Your task to perform on an android device: Go to ESPN.com Image 0: 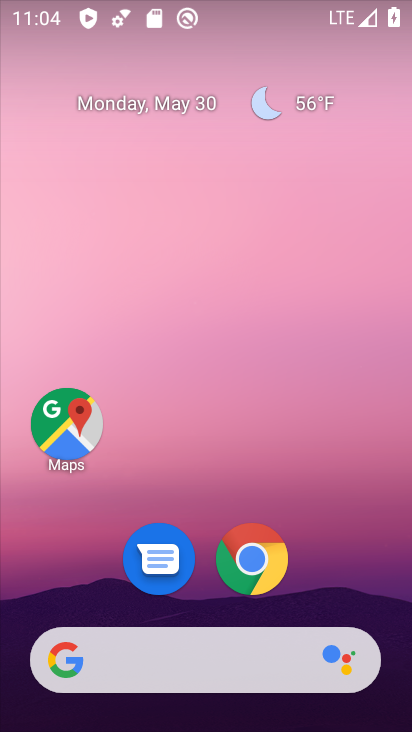
Step 0: click (266, 552)
Your task to perform on an android device: Go to ESPN.com Image 1: 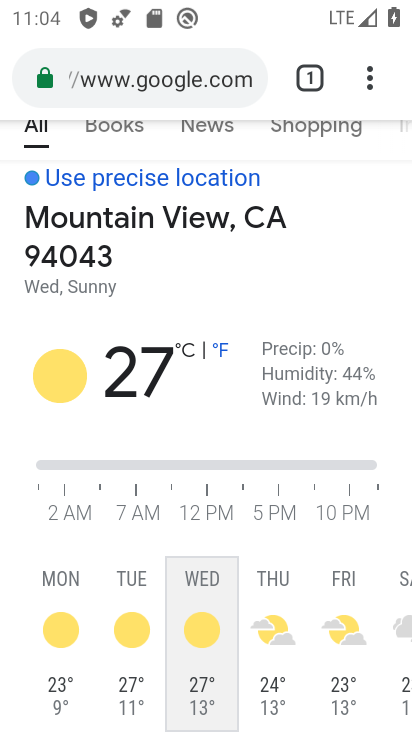
Step 1: click (219, 83)
Your task to perform on an android device: Go to ESPN.com Image 2: 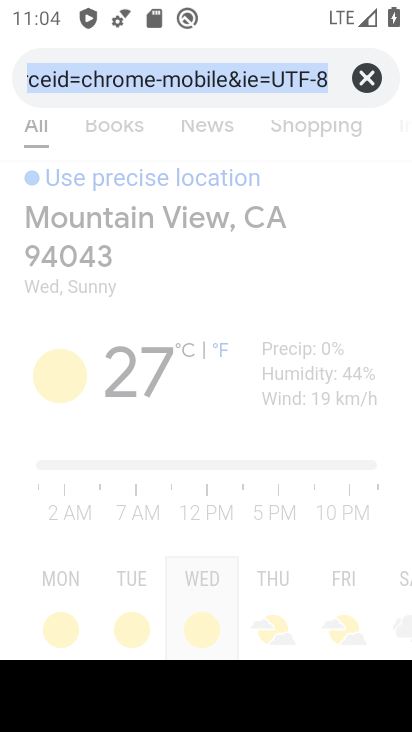
Step 2: type "espn.com"
Your task to perform on an android device: Go to ESPN.com Image 3: 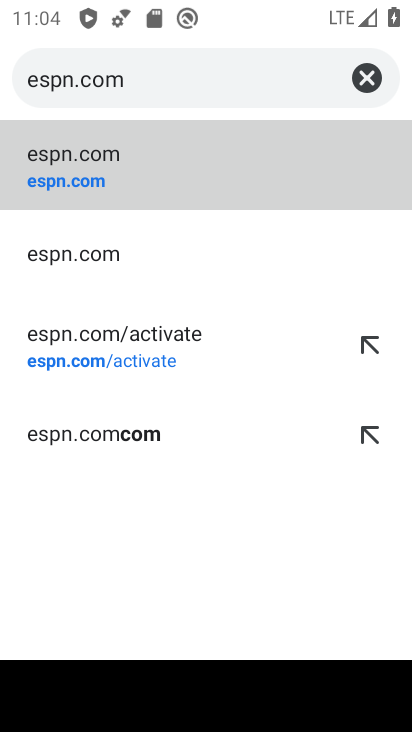
Step 3: click (86, 174)
Your task to perform on an android device: Go to ESPN.com Image 4: 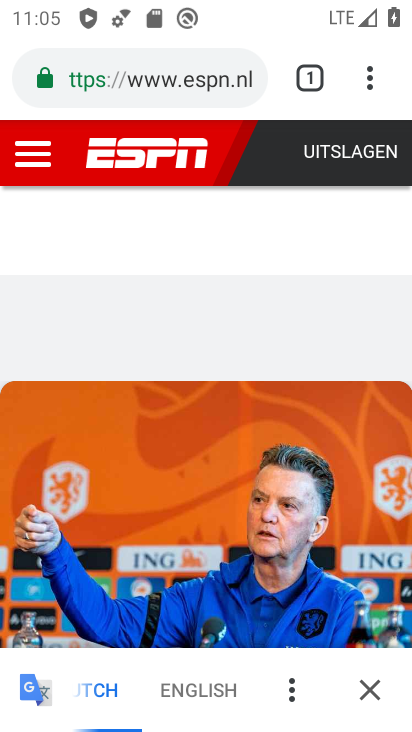
Step 4: task complete